Your task to perform on an android device: Open CNN.com Image 0: 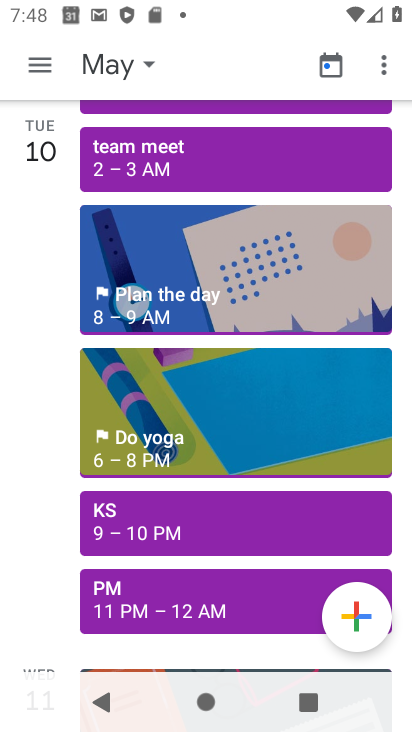
Step 0: press home button
Your task to perform on an android device: Open CNN.com Image 1: 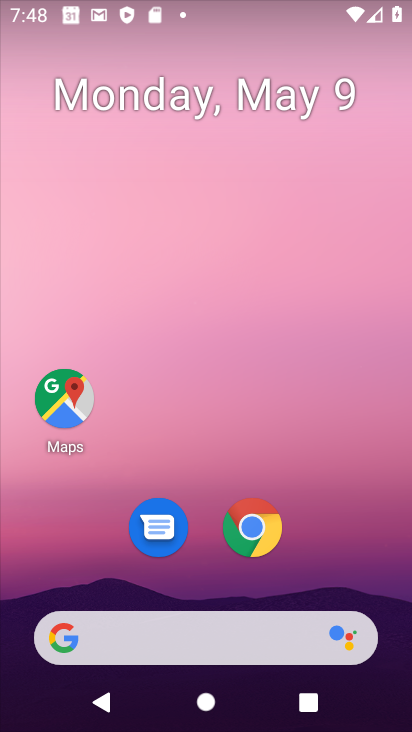
Step 1: click (269, 531)
Your task to perform on an android device: Open CNN.com Image 2: 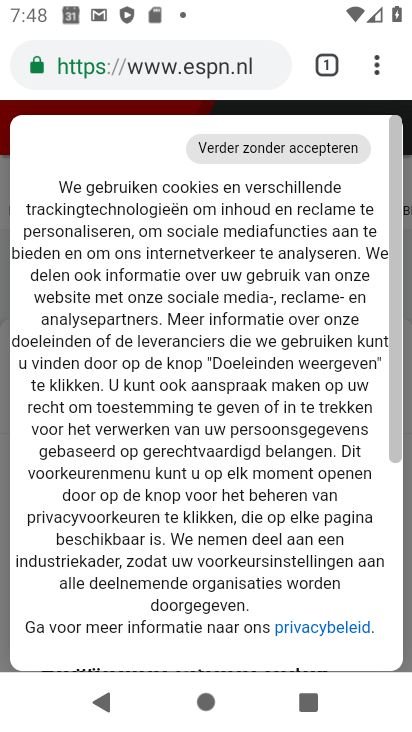
Step 2: click (181, 76)
Your task to perform on an android device: Open CNN.com Image 3: 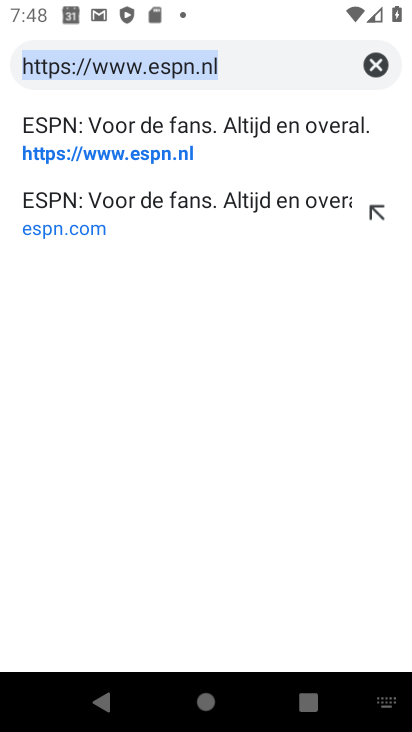
Step 3: type "cnn.com"
Your task to perform on an android device: Open CNN.com Image 4: 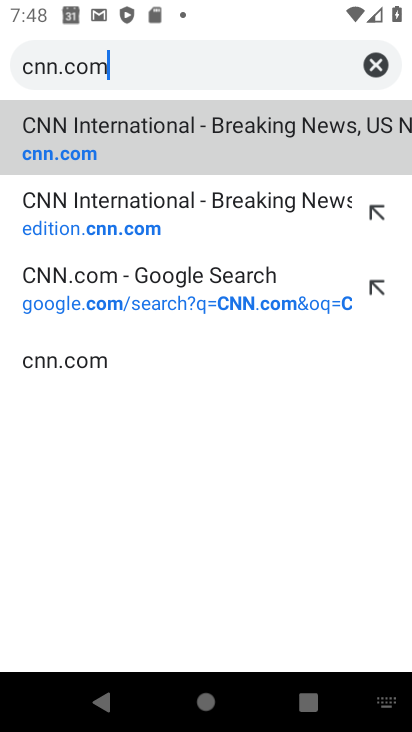
Step 4: click (116, 147)
Your task to perform on an android device: Open CNN.com Image 5: 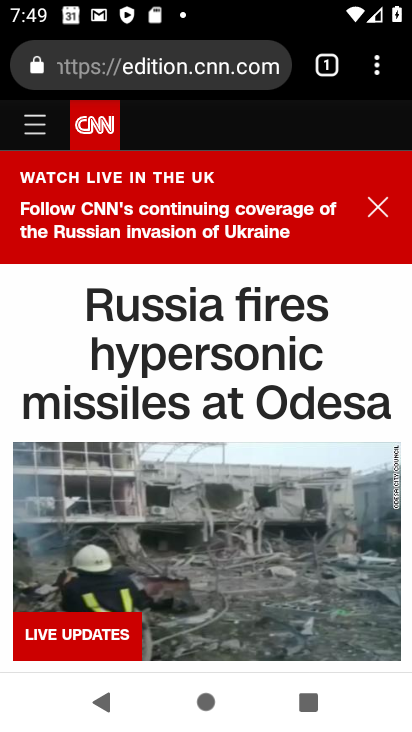
Step 5: task complete